Your task to perform on an android device: toggle javascript in the chrome app Image 0: 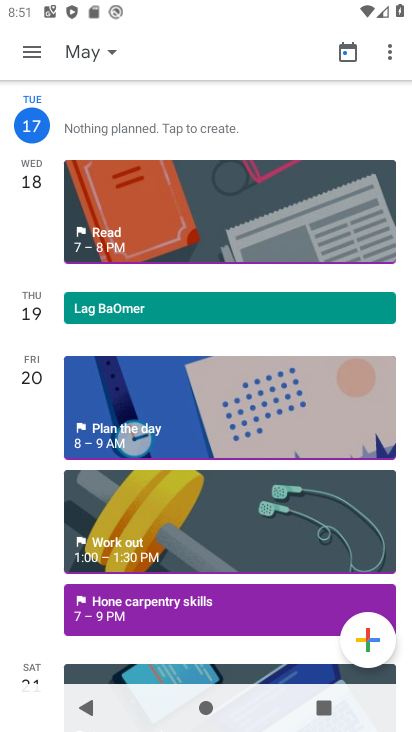
Step 0: press home button
Your task to perform on an android device: toggle javascript in the chrome app Image 1: 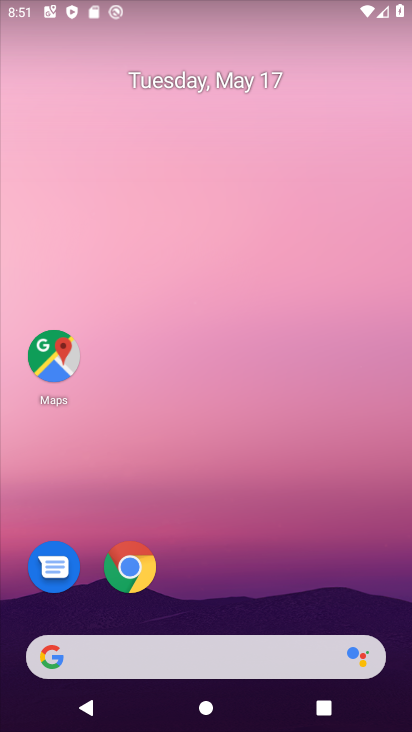
Step 1: click (129, 568)
Your task to perform on an android device: toggle javascript in the chrome app Image 2: 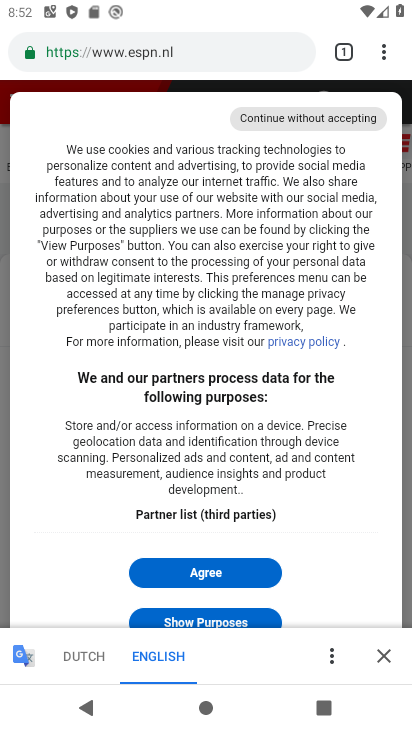
Step 2: click (381, 51)
Your task to perform on an android device: toggle javascript in the chrome app Image 3: 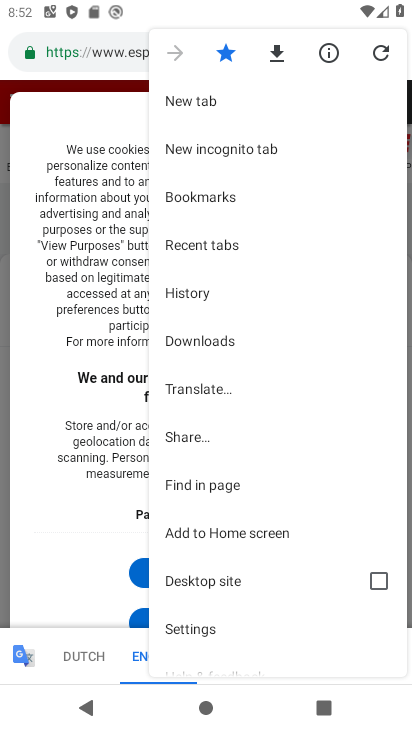
Step 3: click (199, 630)
Your task to perform on an android device: toggle javascript in the chrome app Image 4: 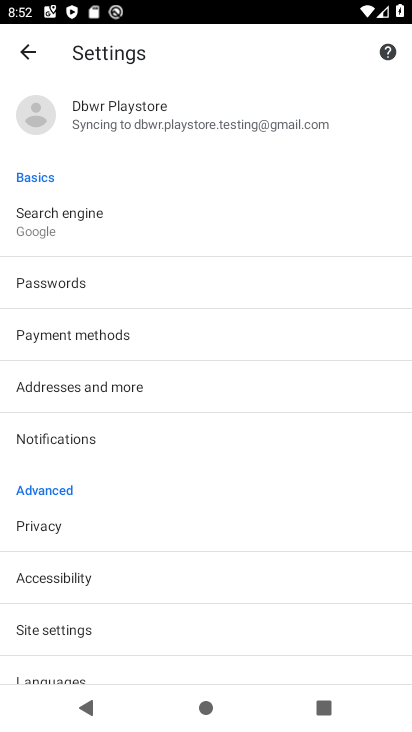
Step 4: drag from (168, 565) to (109, 320)
Your task to perform on an android device: toggle javascript in the chrome app Image 5: 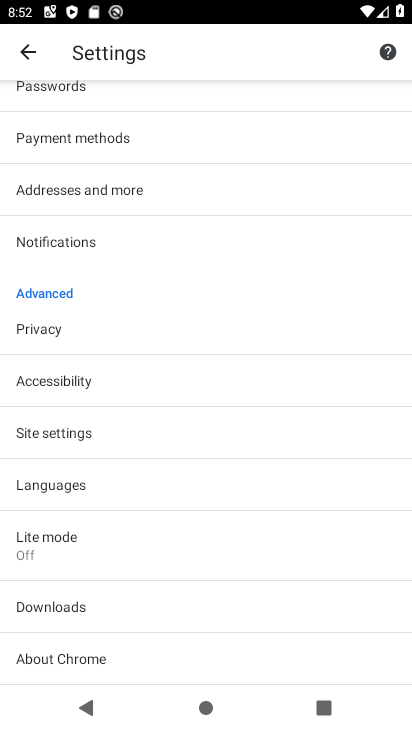
Step 5: click (63, 432)
Your task to perform on an android device: toggle javascript in the chrome app Image 6: 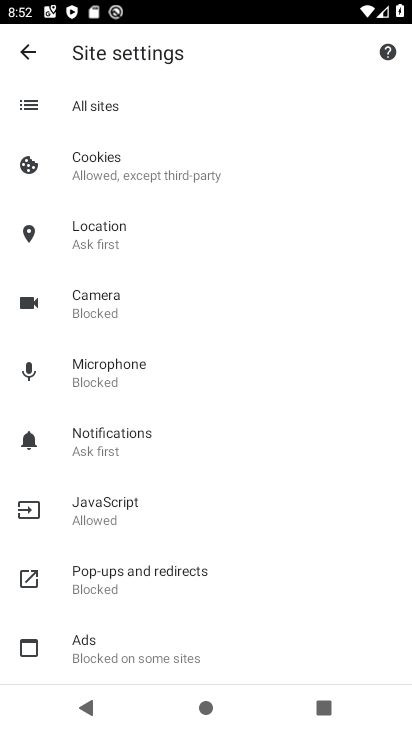
Step 6: click (114, 500)
Your task to perform on an android device: toggle javascript in the chrome app Image 7: 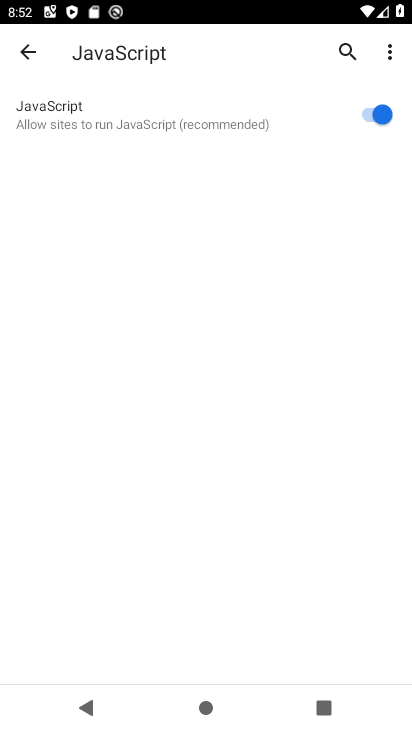
Step 7: click (377, 114)
Your task to perform on an android device: toggle javascript in the chrome app Image 8: 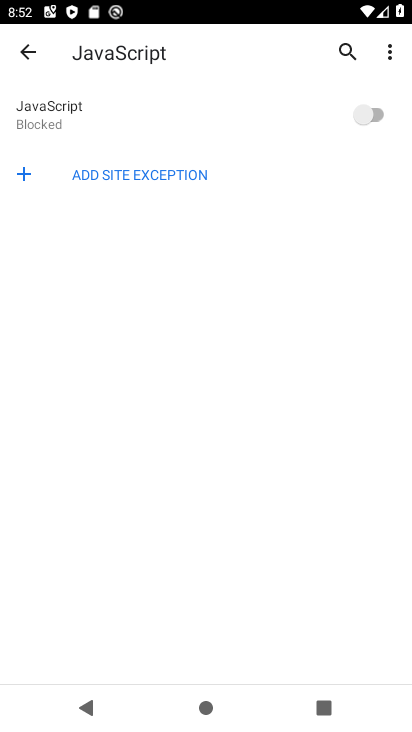
Step 8: task complete